Your task to perform on an android device: Do I have any events today? Image 0: 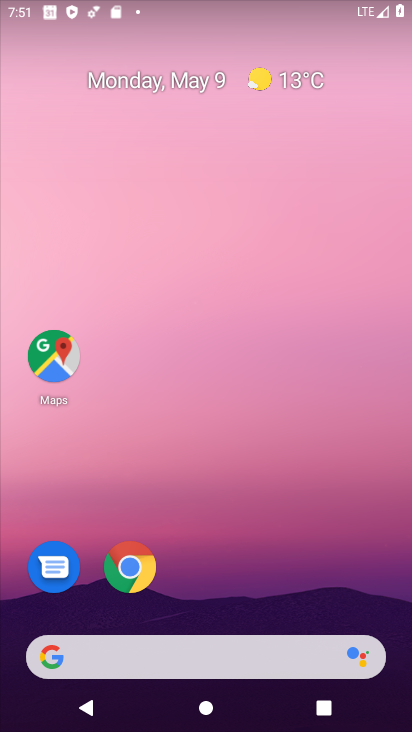
Step 0: drag from (275, 519) to (268, 35)
Your task to perform on an android device: Do I have any events today? Image 1: 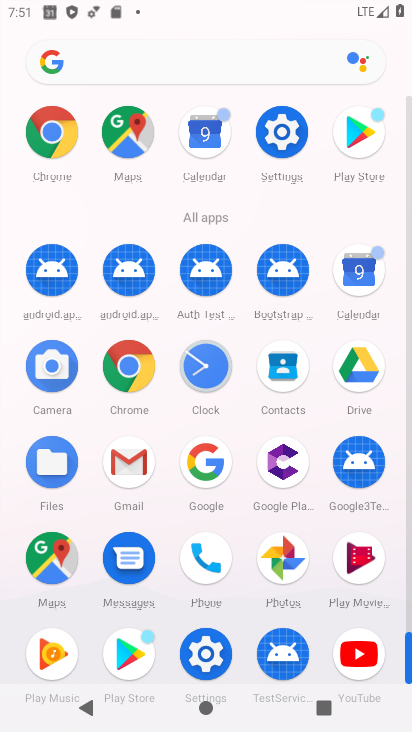
Step 1: click (209, 129)
Your task to perform on an android device: Do I have any events today? Image 2: 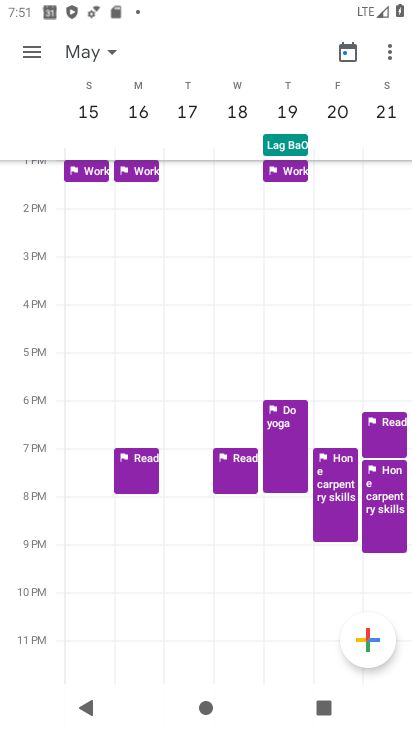
Step 2: drag from (62, 294) to (410, 292)
Your task to perform on an android device: Do I have any events today? Image 3: 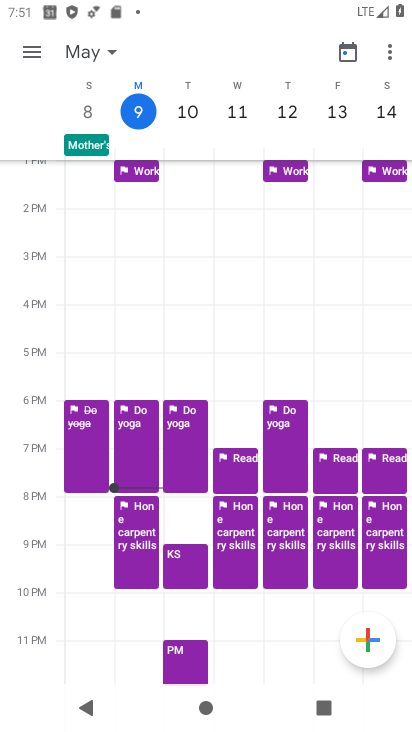
Step 3: click (131, 103)
Your task to perform on an android device: Do I have any events today? Image 4: 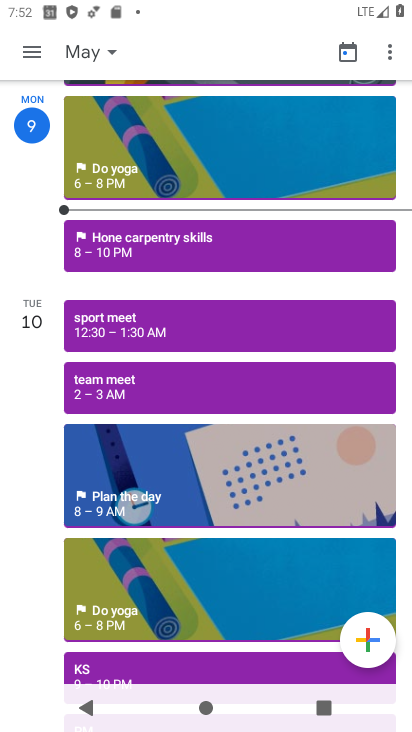
Step 4: task complete